Your task to perform on an android device: Open Google Chrome Image 0: 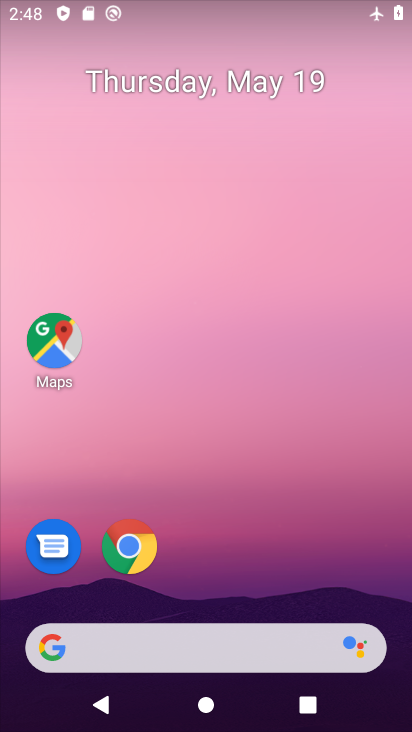
Step 0: click (133, 557)
Your task to perform on an android device: Open Google Chrome Image 1: 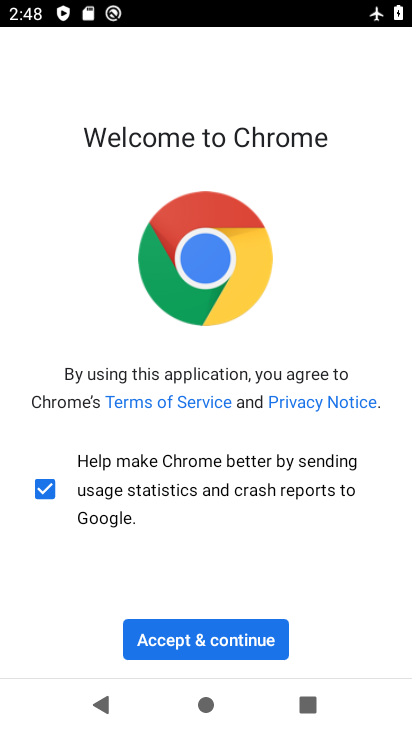
Step 1: click (203, 641)
Your task to perform on an android device: Open Google Chrome Image 2: 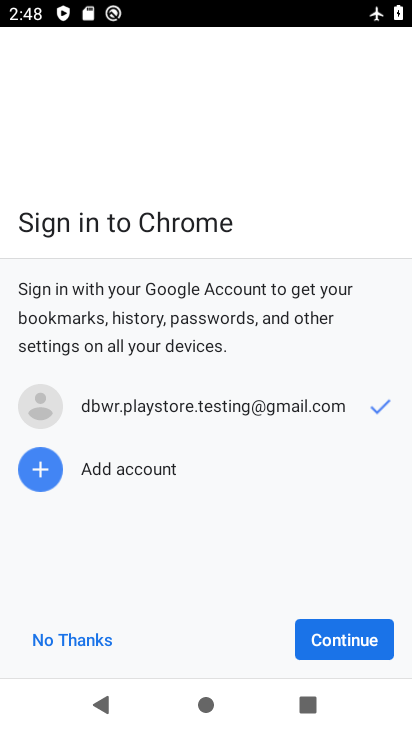
Step 2: click (323, 628)
Your task to perform on an android device: Open Google Chrome Image 3: 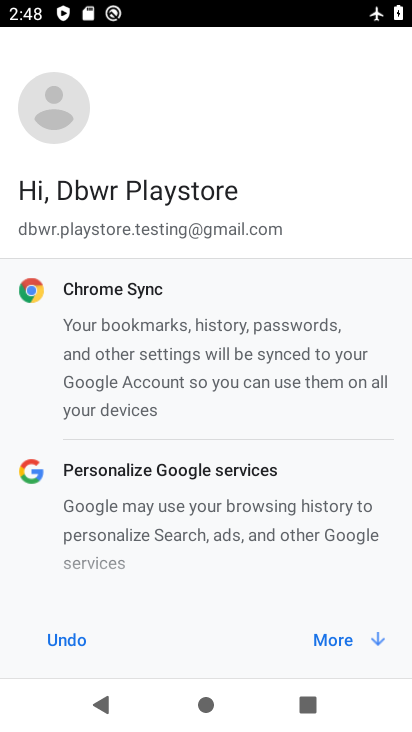
Step 3: click (320, 633)
Your task to perform on an android device: Open Google Chrome Image 4: 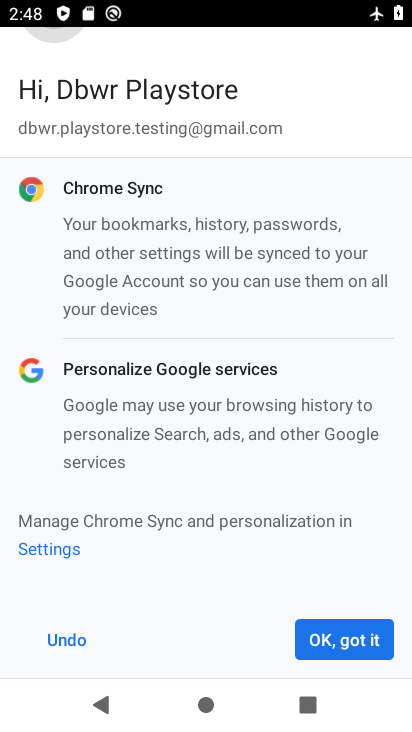
Step 4: click (315, 639)
Your task to perform on an android device: Open Google Chrome Image 5: 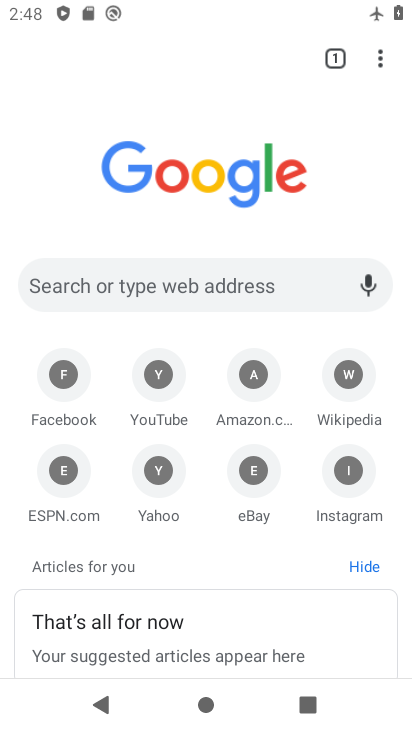
Step 5: task complete